Your task to perform on an android device: Open CNN.com Image 0: 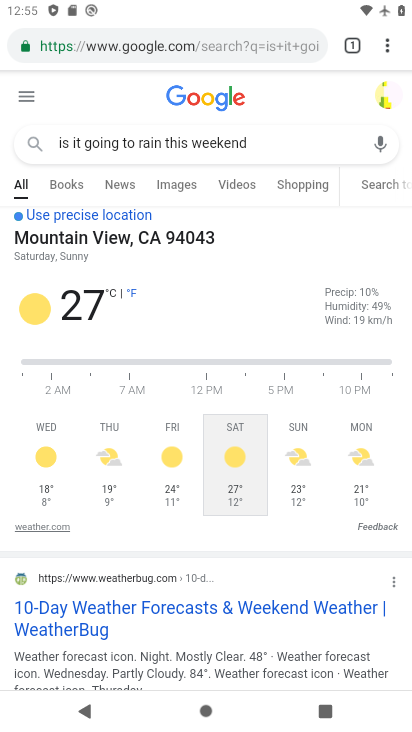
Step 0: click (241, 53)
Your task to perform on an android device: Open CNN.com Image 1: 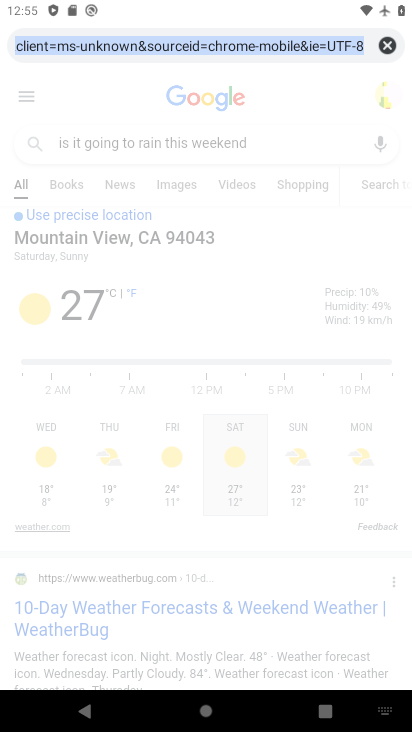
Step 1: type "CNN.com"
Your task to perform on an android device: Open CNN.com Image 2: 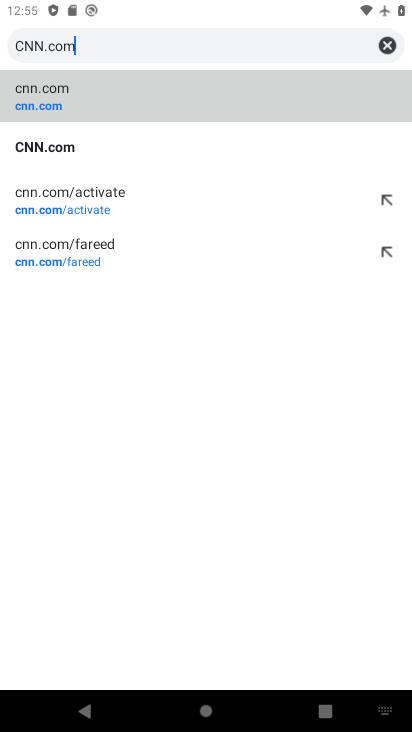
Step 2: click (33, 111)
Your task to perform on an android device: Open CNN.com Image 3: 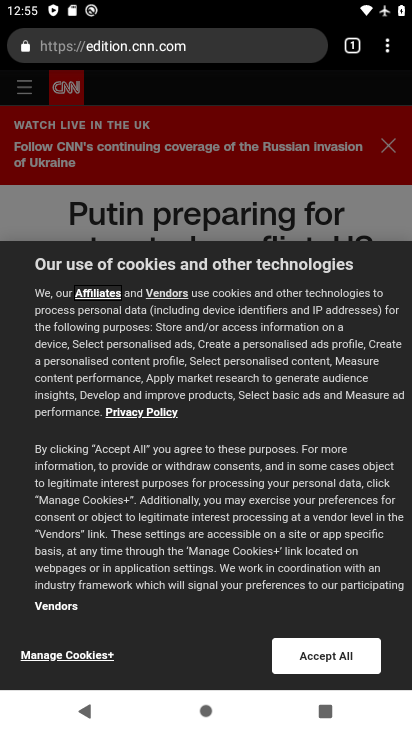
Step 3: task complete